Your task to perform on an android device: set the timer Image 0: 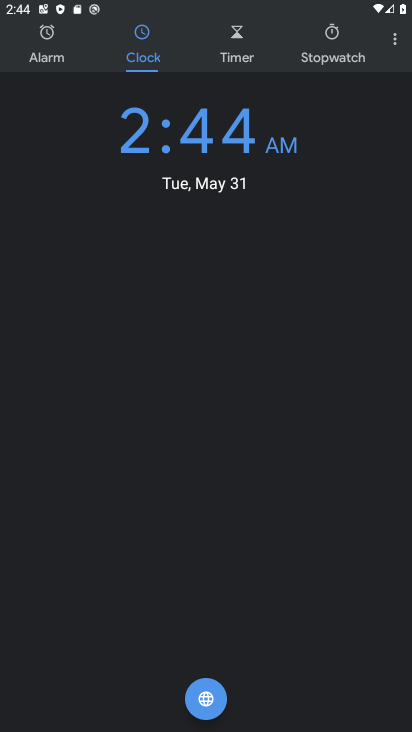
Step 0: press home button
Your task to perform on an android device: set the timer Image 1: 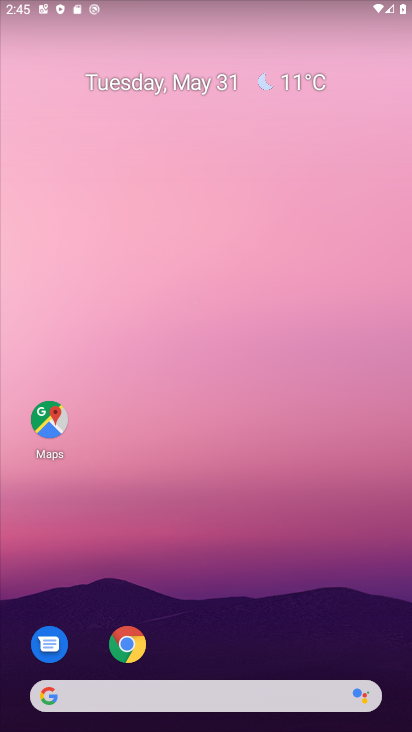
Step 1: drag from (273, 565) to (334, 173)
Your task to perform on an android device: set the timer Image 2: 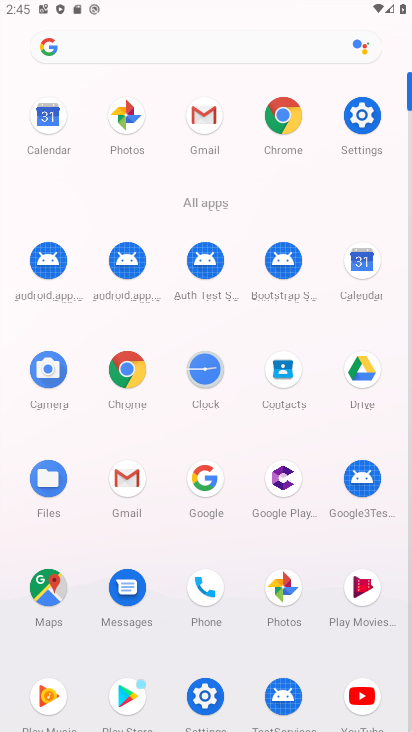
Step 2: click (213, 372)
Your task to perform on an android device: set the timer Image 3: 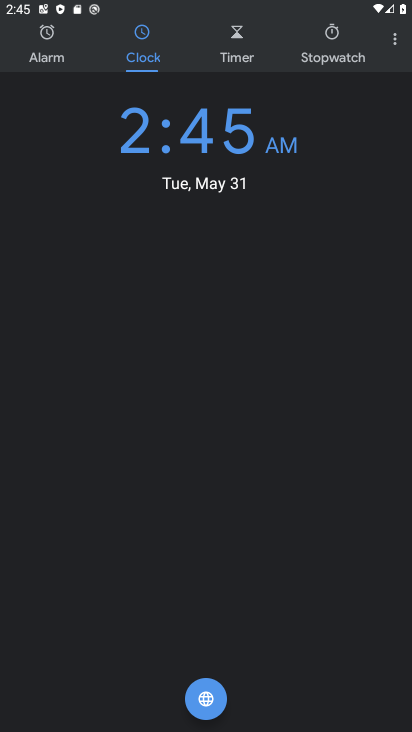
Step 3: click (245, 46)
Your task to perform on an android device: set the timer Image 4: 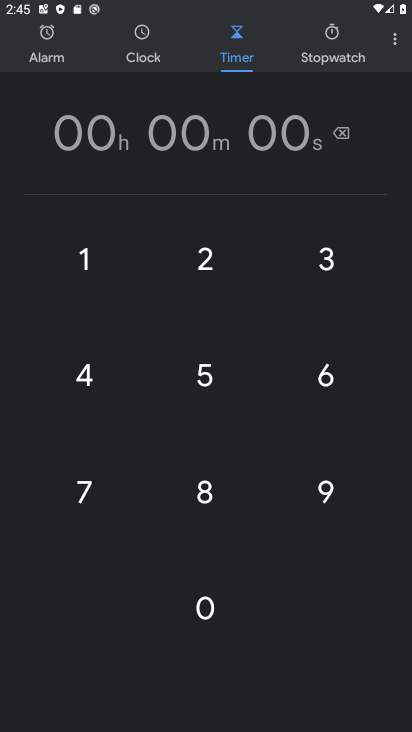
Step 4: click (219, 378)
Your task to perform on an android device: set the timer Image 5: 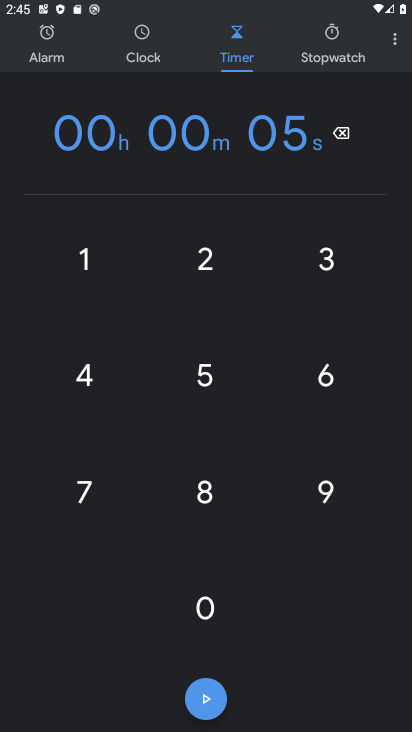
Step 5: click (336, 478)
Your task to perform on an android device: set the timer Image 6: 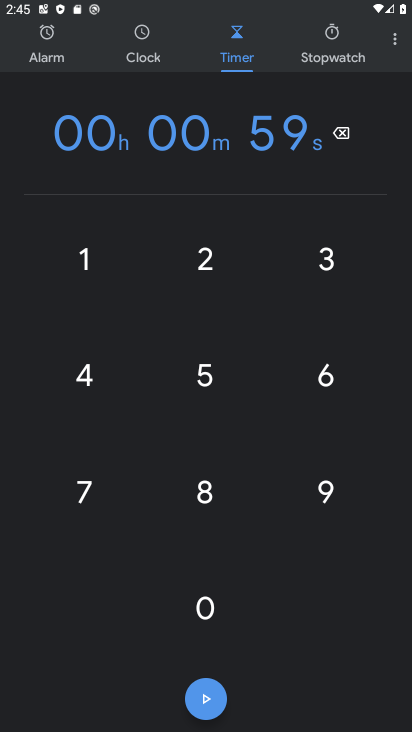
Step 6: click (347, 135)
Your task to perform on an android device: set the timer Image 7: 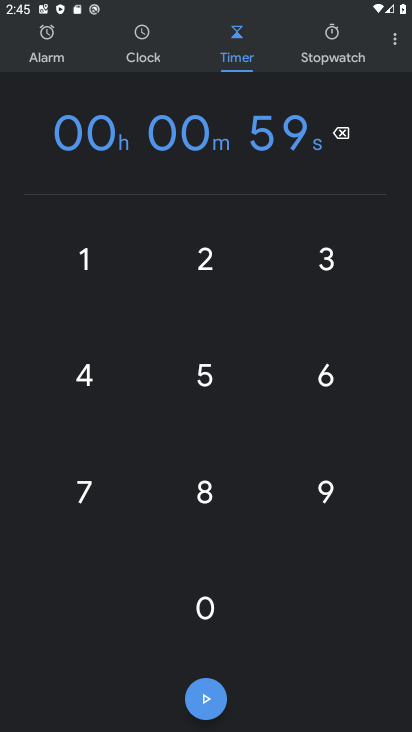
Step 7: click (347, 135)
Your task to perform on an android device: set the timer Image 8: 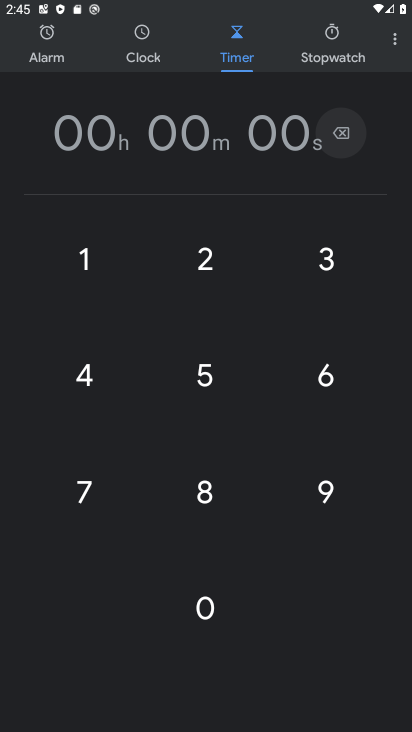
Step 8: click (347, 135)
Your task to perform on an android device: set the timer Image 9: 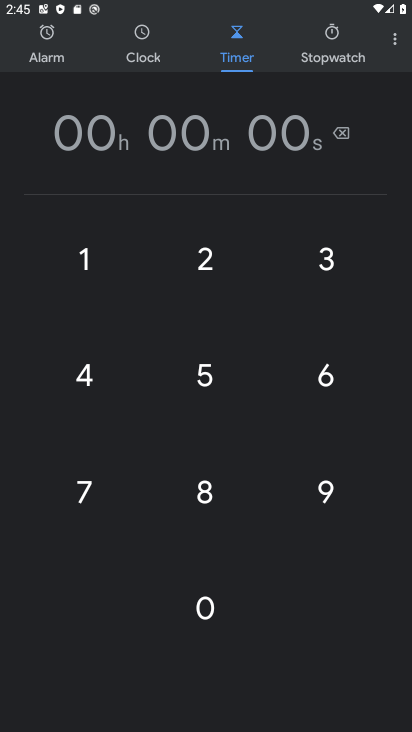
Step 9: click (347, 135)
Your task to perform on an android device: set the timer Image 10: 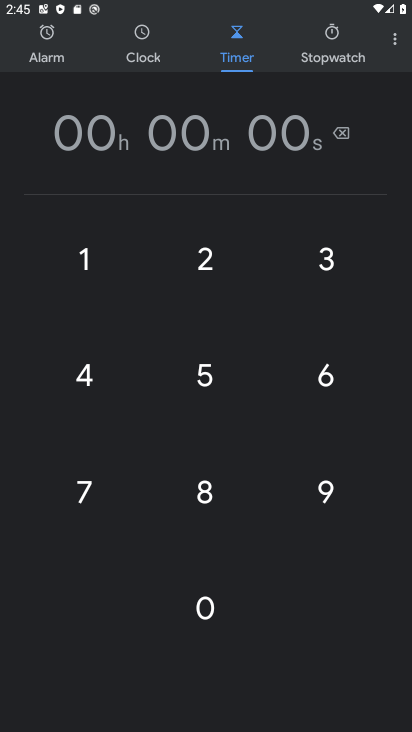
Step 10: click (112, 263)
Your task to perform on an android device: set the timer Image 11: 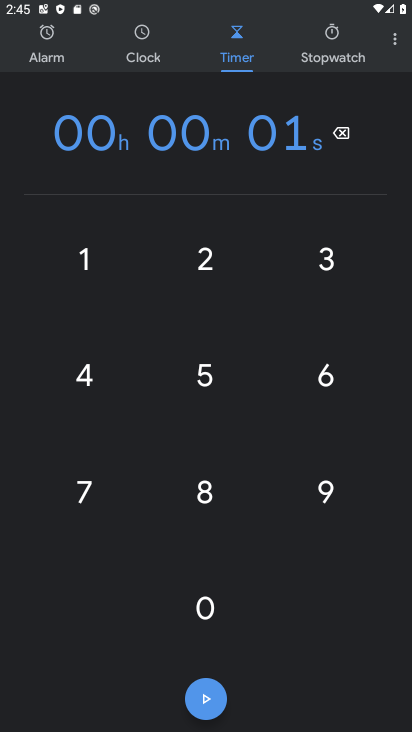
Step 11: click (86, 254)
Your task to perform on an android device: set the timer Image 12: 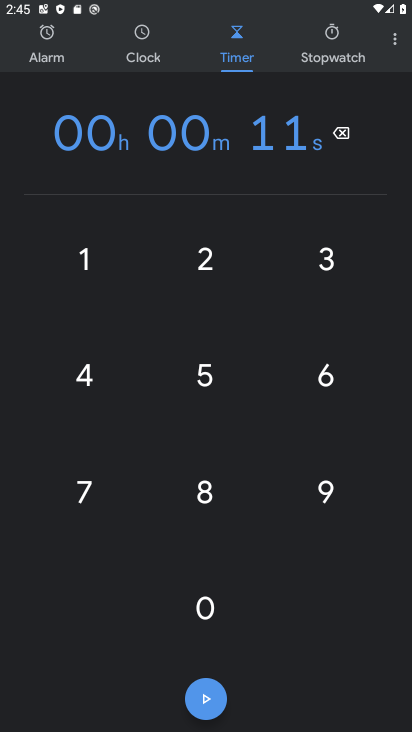
Step 12: click (206, 358)
Your task to perform on an android device: set the timer Image 13: 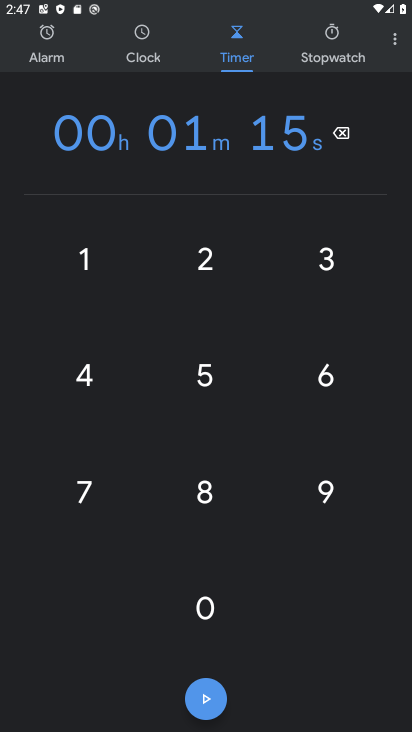
Step 13: click (211, 692)
Your task to perform on an android device: set the timer Image 14: 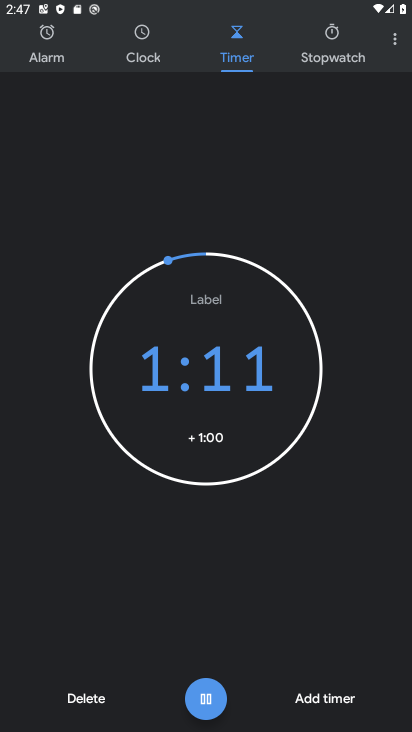
Step 14: task complete